Your task to perform on an android device: turn on improve location accuracy Image 0: 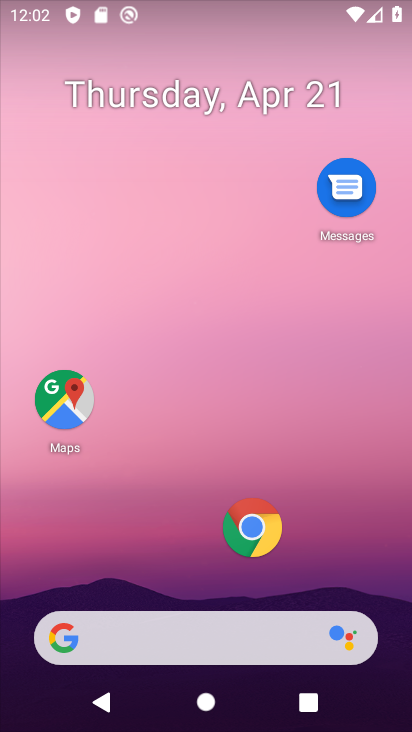
Step 0: drag from (163, 571) to (243, 3)
Your task to perform on an android device: turn on improve location accuracy Image 1: 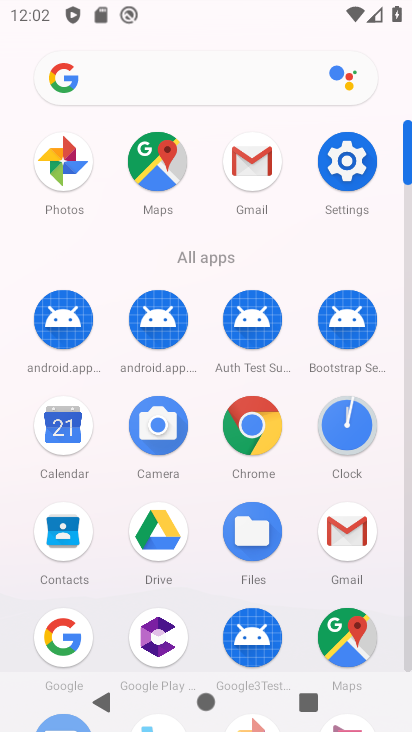
Step 1: click (338, 146)
Your task to perform on an android device: turn on improve location accuracy Image 2: 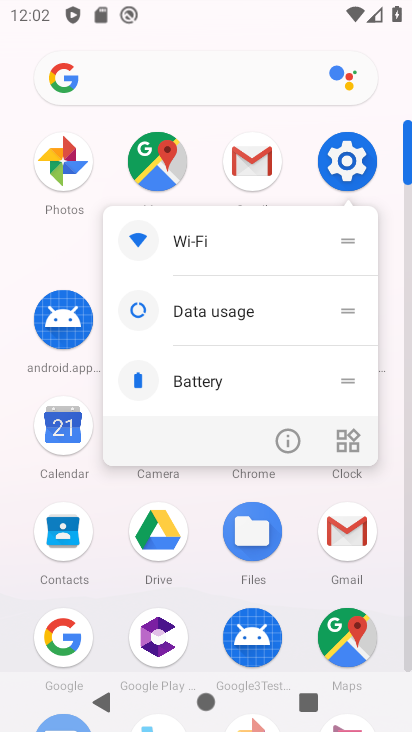
Step 2: click (330, 140)
Your task to perform on an android device: turn on improve location accuracy Image 3: 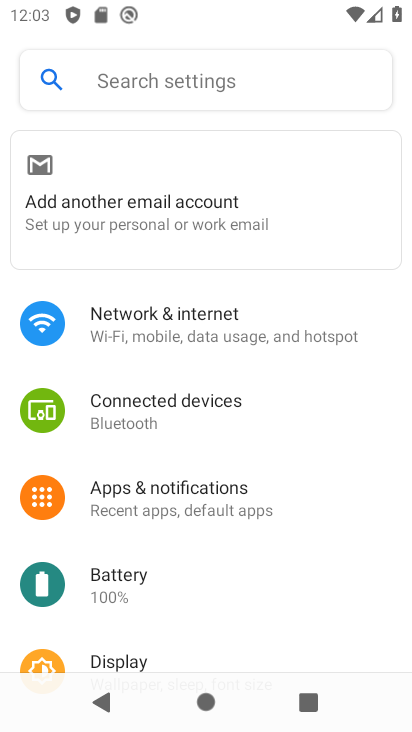
Step 3: drag from (199, 534) to (208, 387)
Your task to perform on an android device: turn on improve location accuracy Image 4: 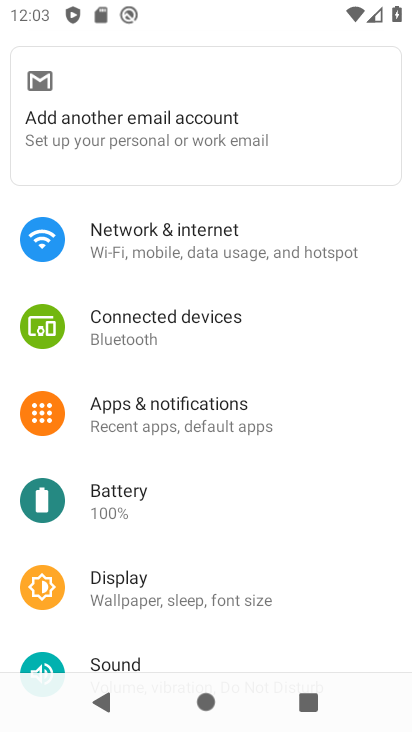
Step 4: drag from (205, 526) to (196, 358)
Your task to perform on an android device: turn on improve location accuracy Image 5: 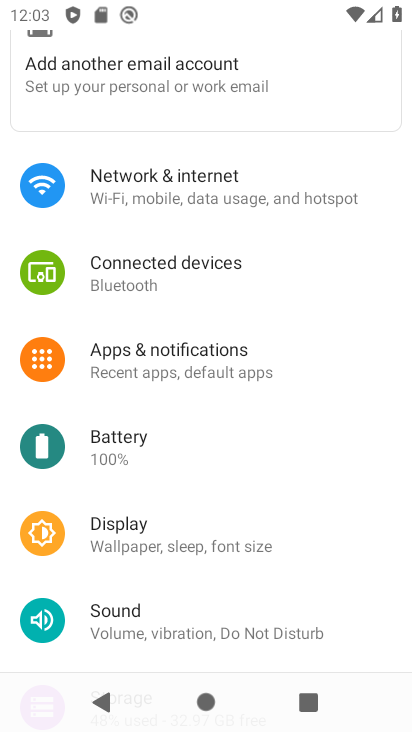
Step 5: drag from (211, 420) to (247, 278)
Your task to perform on an android device: turn on improve location accuracy Image 6: 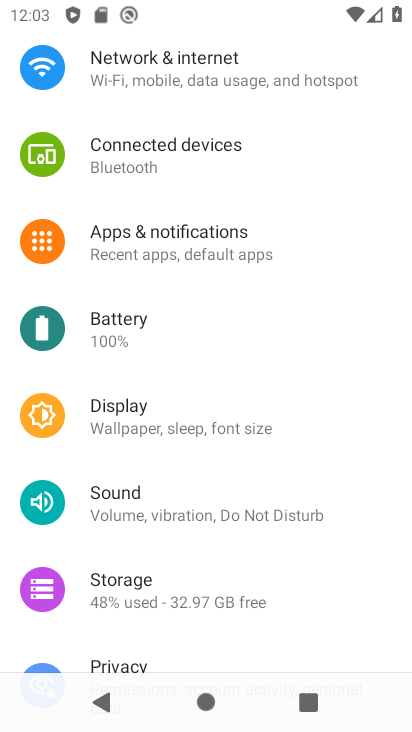
Step 6: drag from (216, 487) to (230, 314)
Your task to perform on an android device: turn on improve location accuracy Image 7: 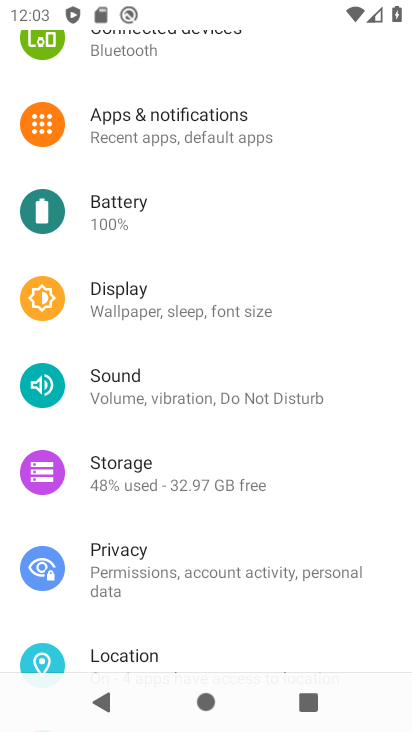
Step 7: drag from (217, 563) to (208, 316)
Your task to perform on an android device: turn on improve location accuracy Image 8: 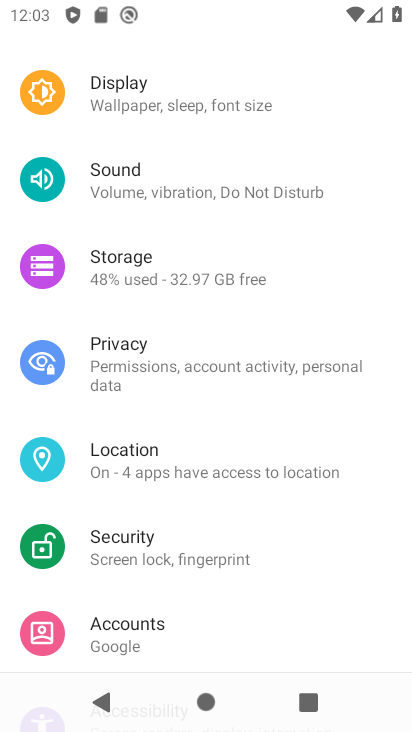
Step 8: click (175, 487)
Your task to perform on an android device: turn on improve location accuracy Image 9: 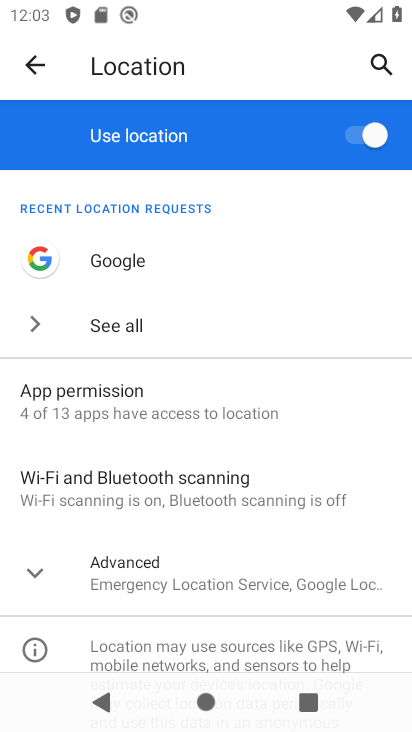
Step 9: drag from (141, 520) to (160, 314)
Your task to perform on an android device: turn on improve location accuracy Image 10: 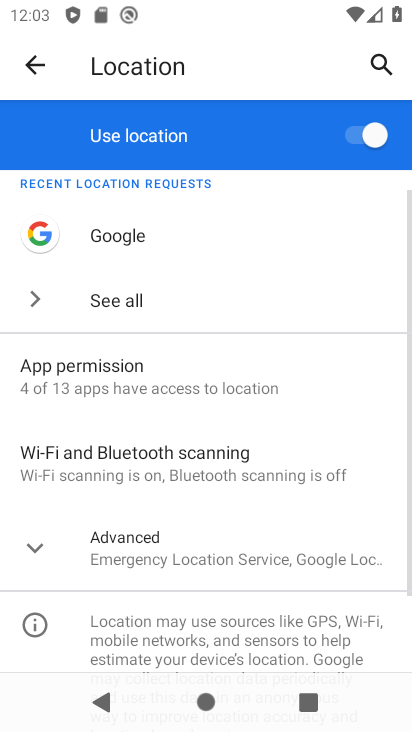
Step 10: click (98, 551)
Your task to perform on an android device: turn on improve location accuracy Image 11: 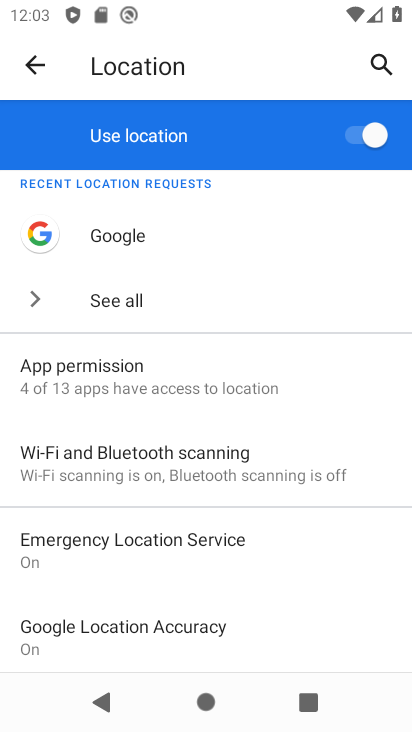
Step 11: click (127, 626)
Your task to perform on an android device: turn on improve location accuracy Image 12: 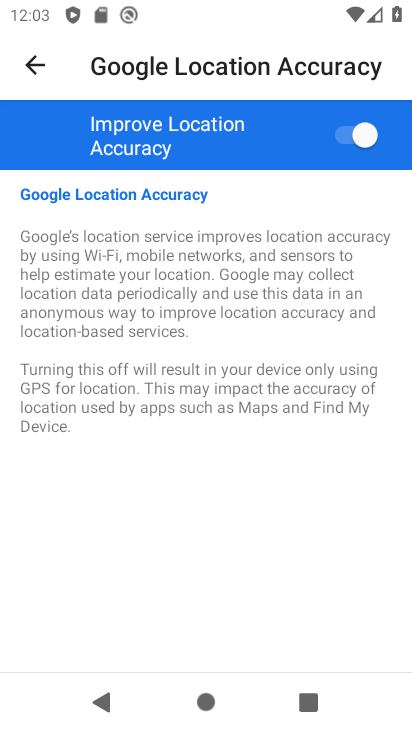
Step 12: task complete